Your task to perform on an android device: uninstall "ZOOM Cloud Meetings" Image 0: 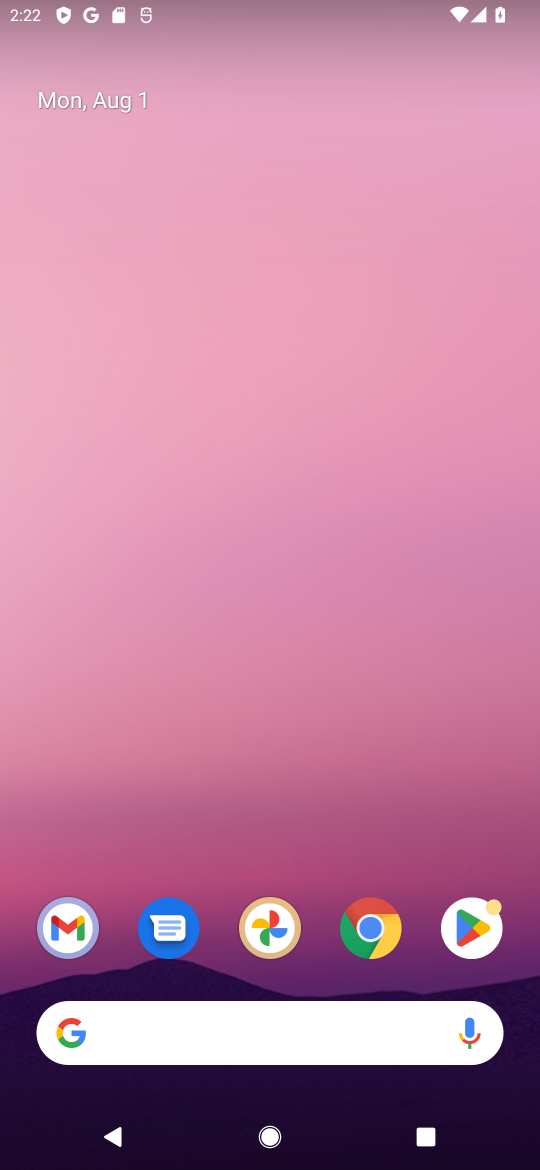
Step 0: click (473, 935)
Your task to perform on an android device: uninstall "ZOOM Cloud Meetings" Image 1: 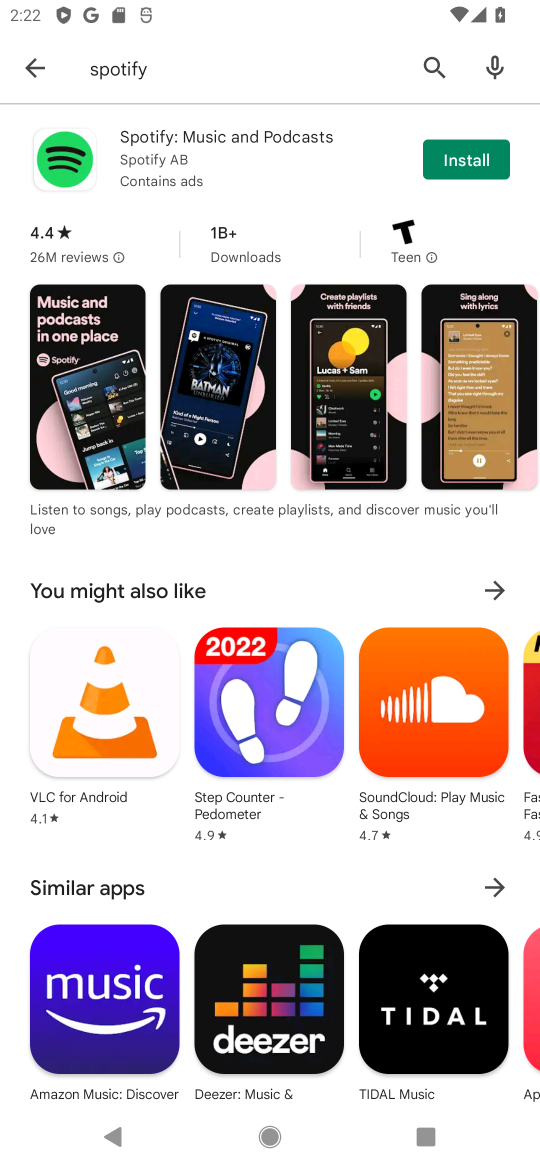
Step 1: click (435, 68)
Your task to perform on an android device: uninstall "ZOOM Cloud Meetings" Image 2: 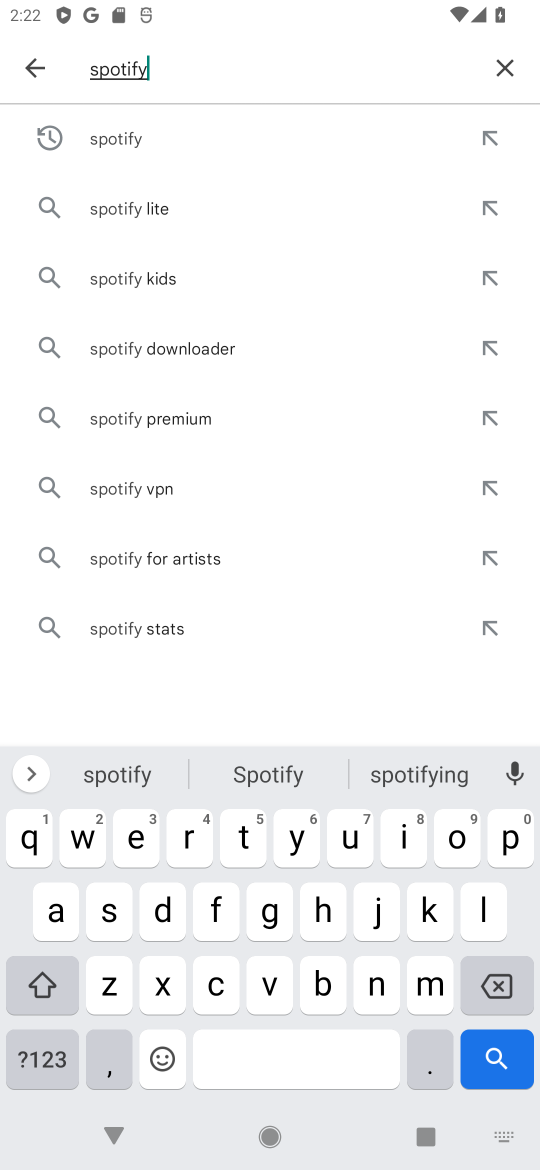
Step 2: click (499, 70)
Your task to perform on an android device: uninstall "ZOOM Cloud Meetings" Image 3: 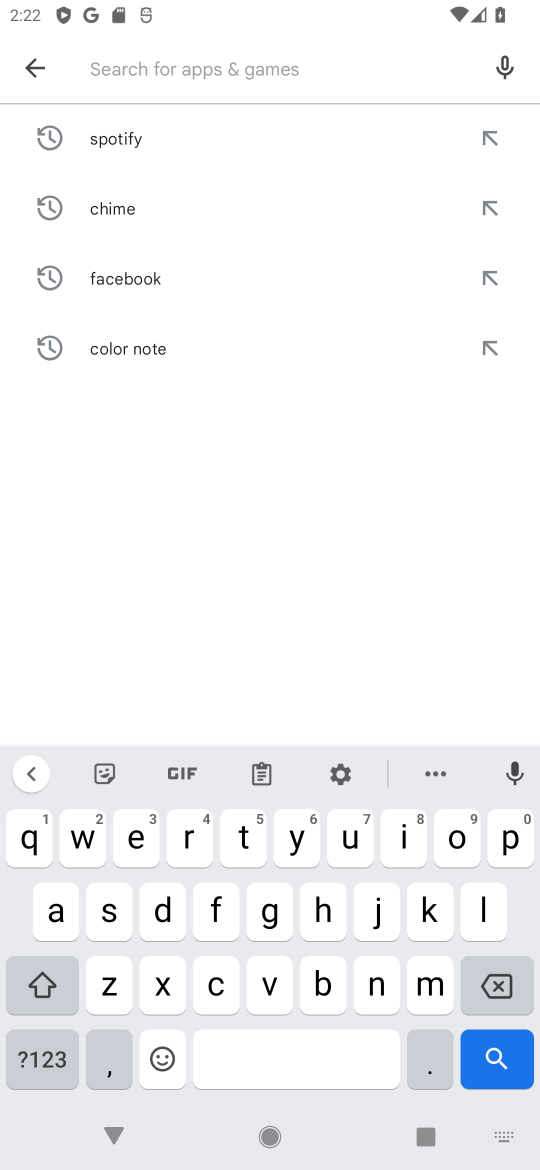
Step 3: click (119, 981)
Your task to perform on an android device: uninstall "ZOOM Cloud Meetings" Image 4: 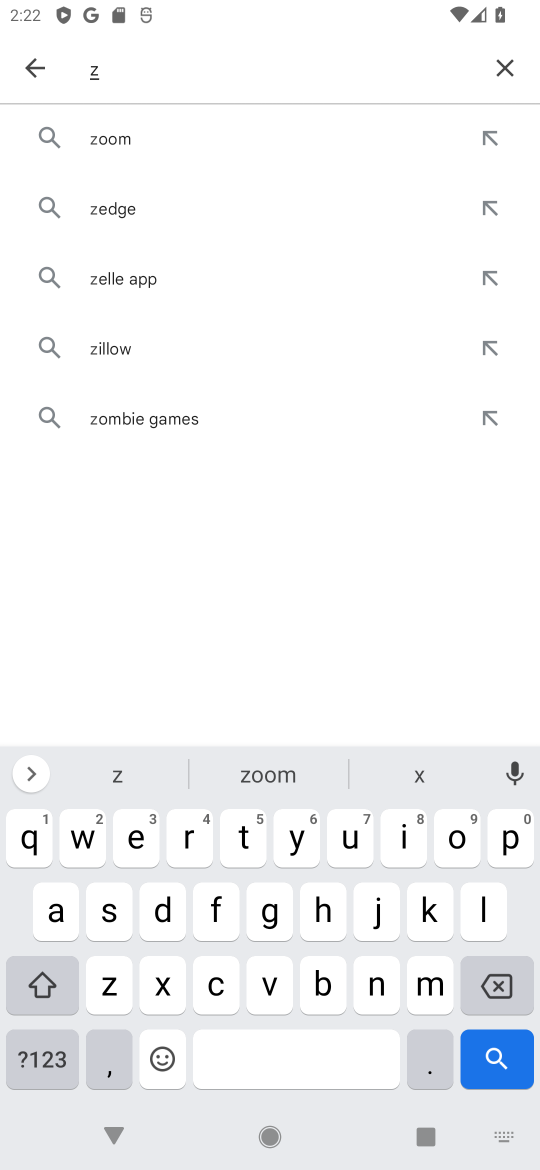
Step 4: click (158, 150)
Your task to perform on an android device: uninstall "ZOOM Cloud Meetings" Image 5: 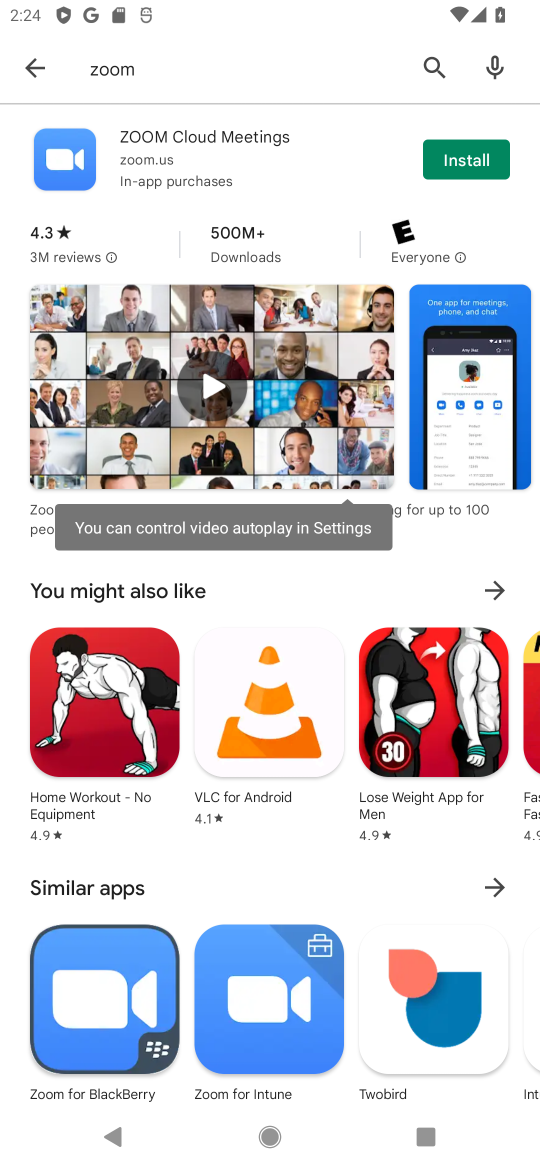
Step 5: task complete